Your task to perform on an android device: Is it going to rain tomorrow? Image 0: 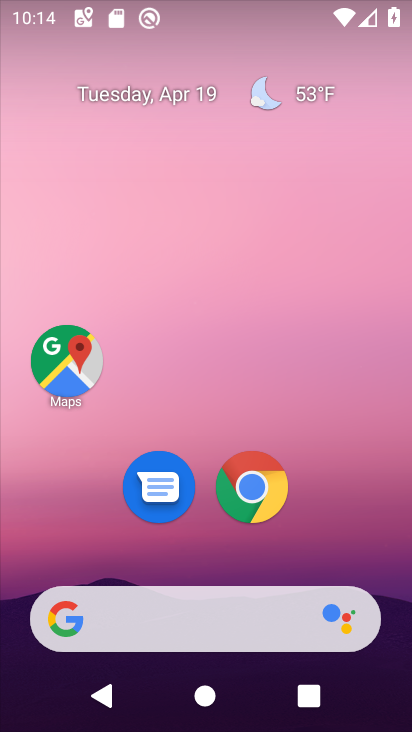
Step 0: drag from (385, 533) to (208, 7)
Your task to perform on an android device: Is it going to rain tomorrow? Image 1: 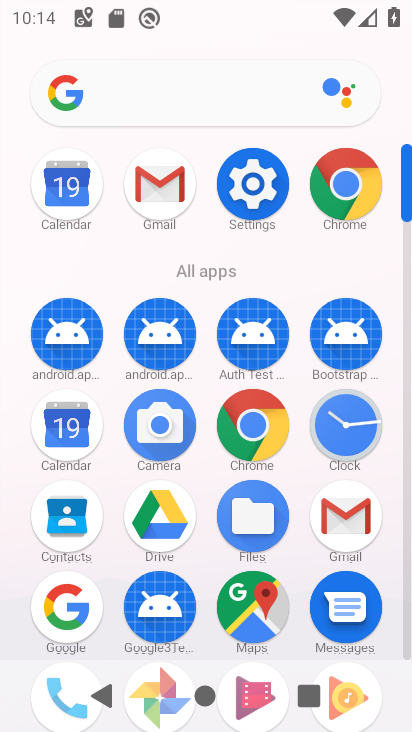
Step 1: drag from (9, 530) to (3, 231)
Your task to perform on an android device: Is it going to rain tomorrow? Image 2: 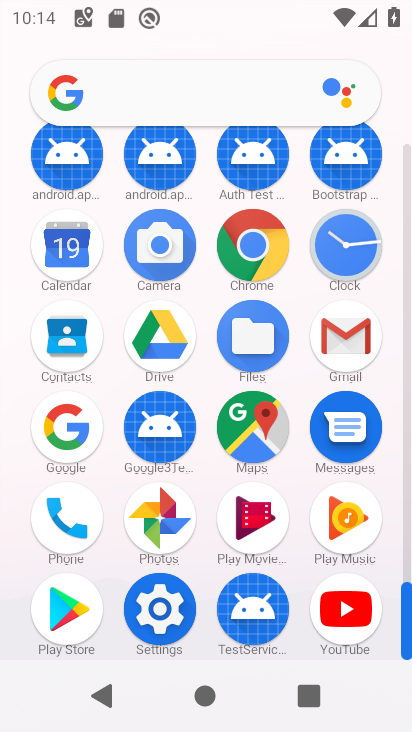
Step 2: drag from (10, 307) to (5, 143)
Your task to perform on an android device: Is it going to rain tomorrow? Image 3: 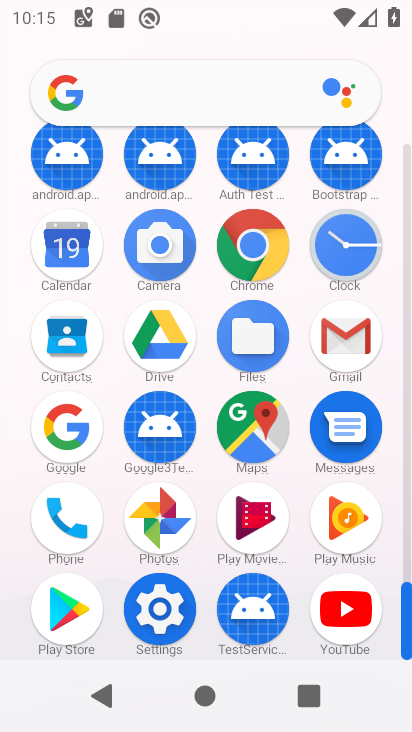
Step 3: click (69, 240)
Your task to perform on an android device: Is it going to rain tomorrow? Image 4: 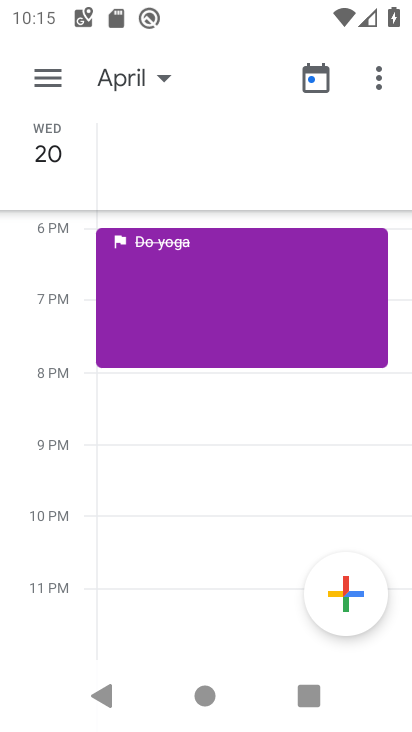
Step 4: press back button
Your task to perform on an android device: Is it going to rain tomorrow? Image 5: 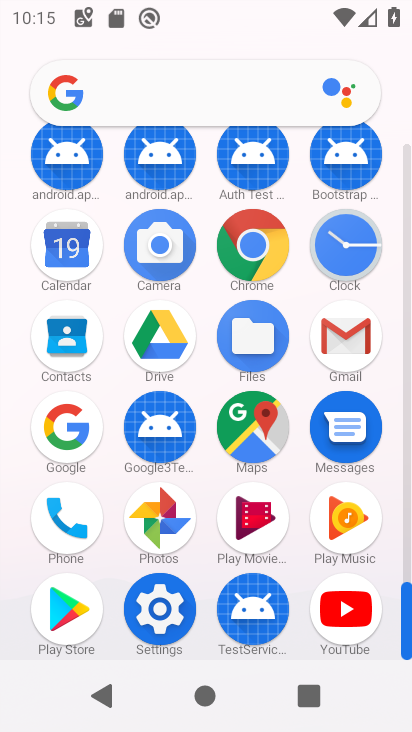
Step 5: drag from (17, 537) to (12, 220)
Your task to perform on an android device: Is it going to rain tomorrow? Image 6: 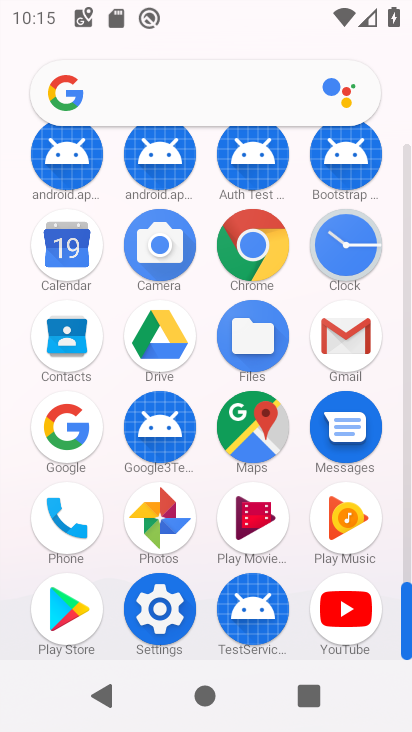
Step 6: click (199, 94)
Your task to perform on an android device: Is it going to rain tomorrow? Image 7: 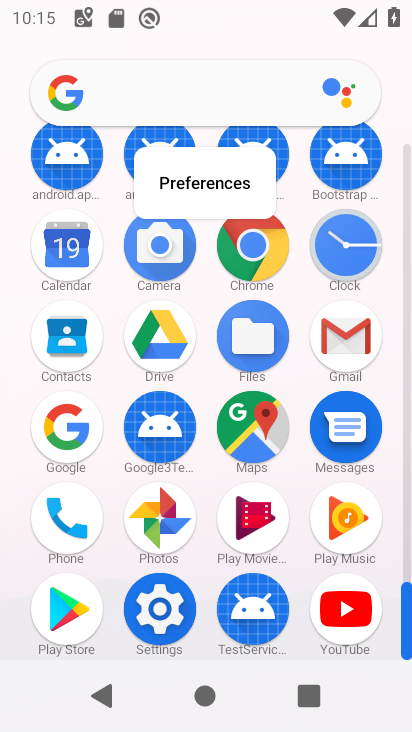
Step 7: click (222, 89)
Your task to perform on an android device: Is it going to rain tomorrow? Image 8: 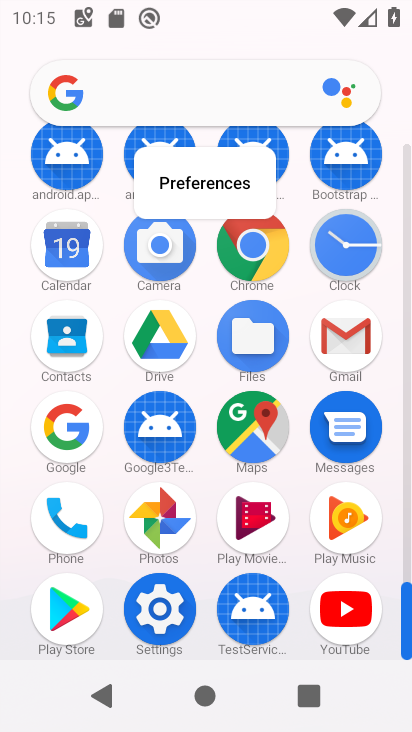
Step 8: click (256, 94)
Your task to perform on an android device: Is it going to rain tomorrow? Image 9: 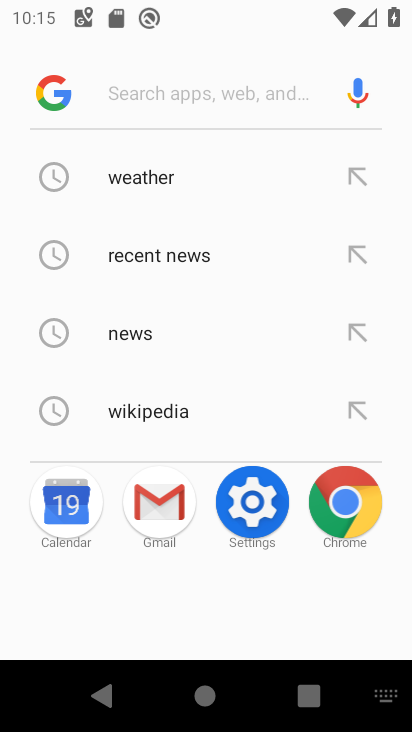
Step 9: click (163, 176)
Your task to perform on an android device: Is it going to rain tomorrow? Image 10: 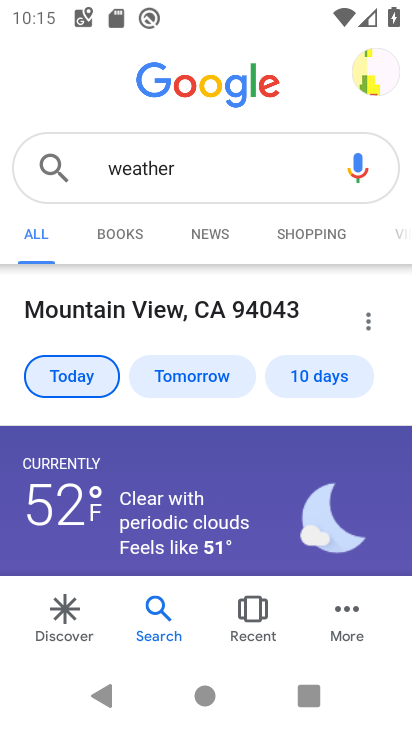
Step 10: drag from (233, 473) to (217, 234)
Your task to perform on an android device: Is it going to rain tomorrow? Image 11: 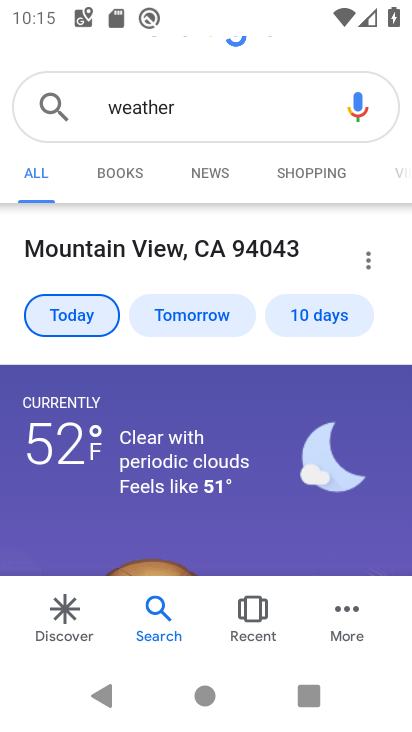
Step 11: click (200, 320)
Your task to perform on an android device: Is it going to rain tomorrow? Image 12: 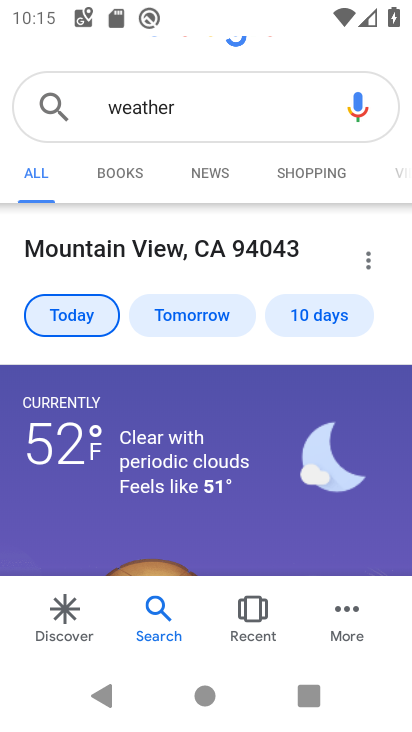
Step 12: click (188, 318)
Your task to perform on an android device: Is it going to rain tomorrow? Image 13: 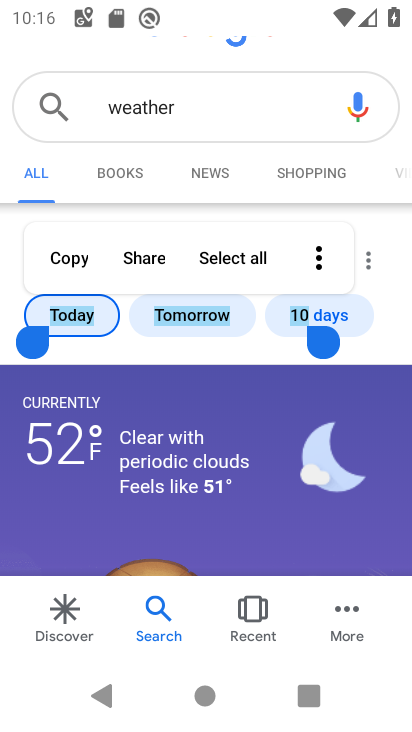
Step 13: click (195, 322)
Your task to perform on an android device: Is it going to rain tomorrow? Image 14: 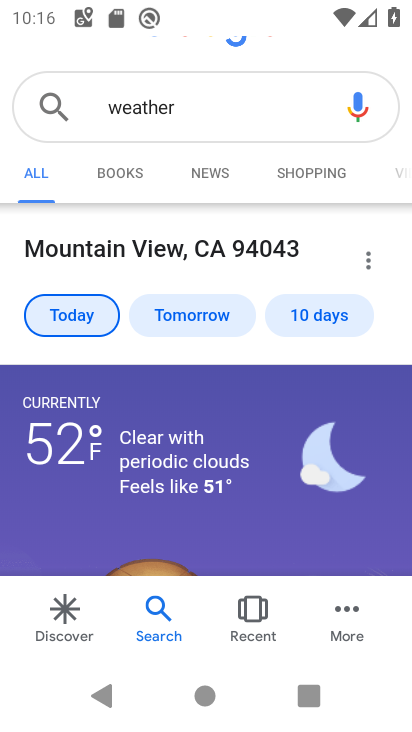
Step 14: task complete